Your task to perform on an android device: Open my contact list Image 0: 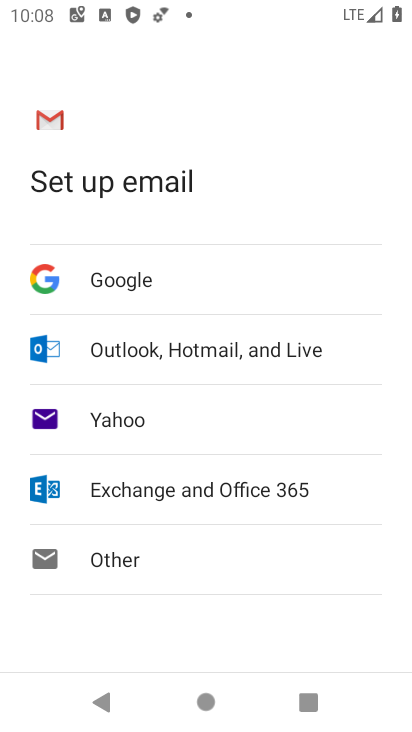
Step 0: press home button
Your task to perform on an android device: Open my contact list Image 1: 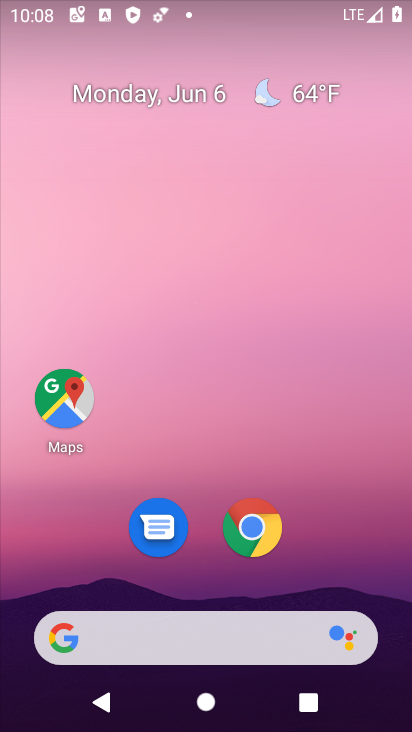
Step 1: drag from (179, 569) to (196, 280)
Your task to perform on an android device: Open my contact list Image 2: 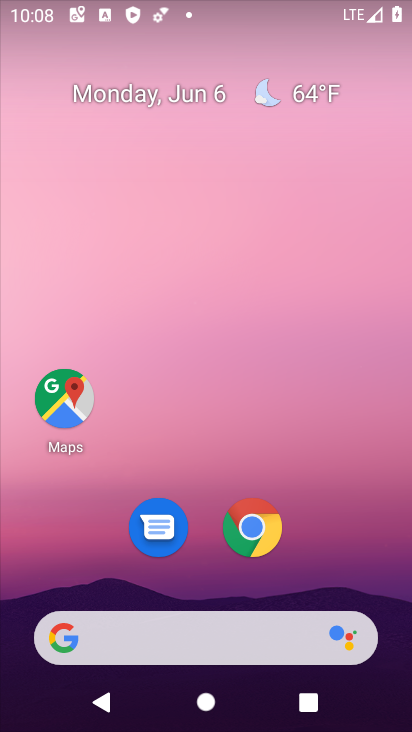
Step 2: drag from (181, 650) to (177, 295)
Your task to perform on an android device: Open my contact list Image 3: 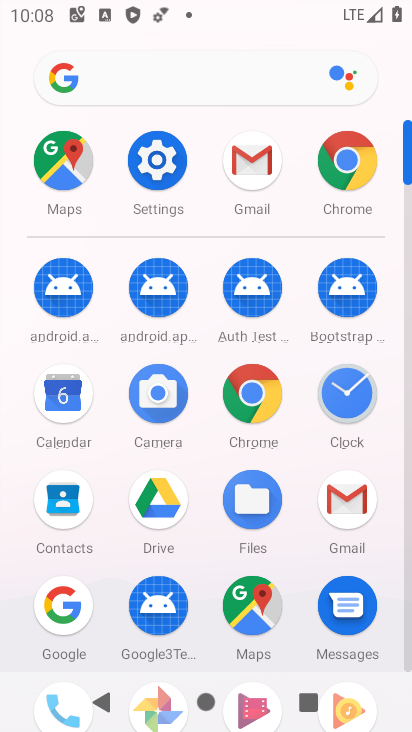
Step 3: click (66, 501)
Your task to perform on an android device: Open my contact list Image 4: 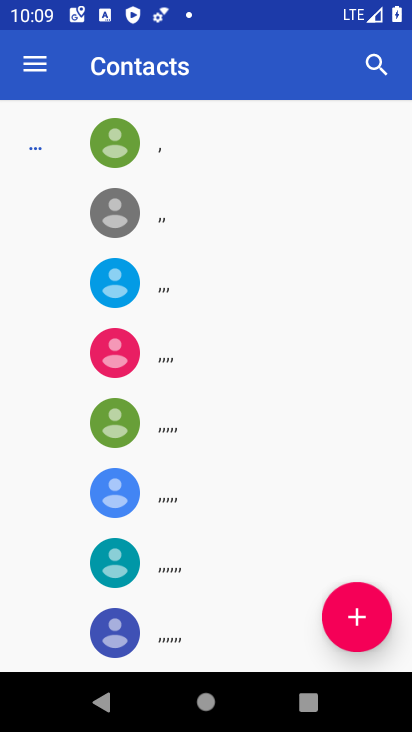
Step 4: task complete